Your task to perform on an android device: Turn on the flashlight Image 0: 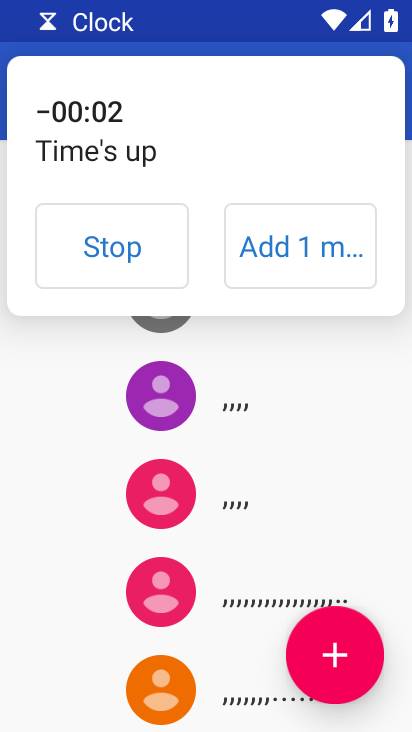
Step 0: press home button
Your task to perform on an android device: Turn on the flashlight Image 1: 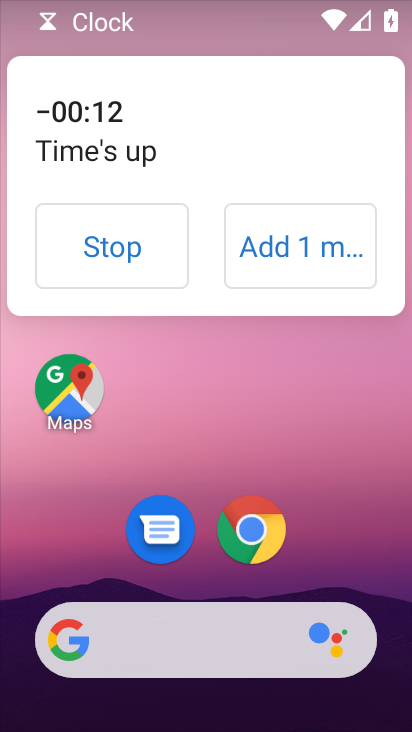
Step 1: drag from (201, 622) to (218, 159)
Your task to perform on an android device: Turn on the flashlight Image 2: 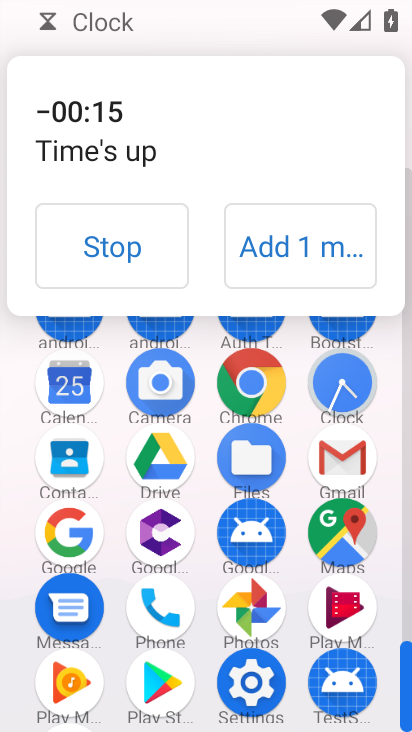
Step 2: click (248, 681)
Your task to perform on an android device: Turn on the flashlight Image 3: 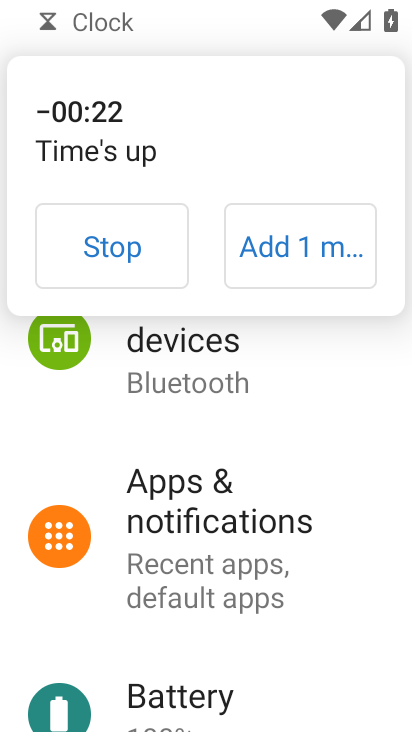
Step 3: task complete